Your task to perform on an android device: toggle wifi Image 0: 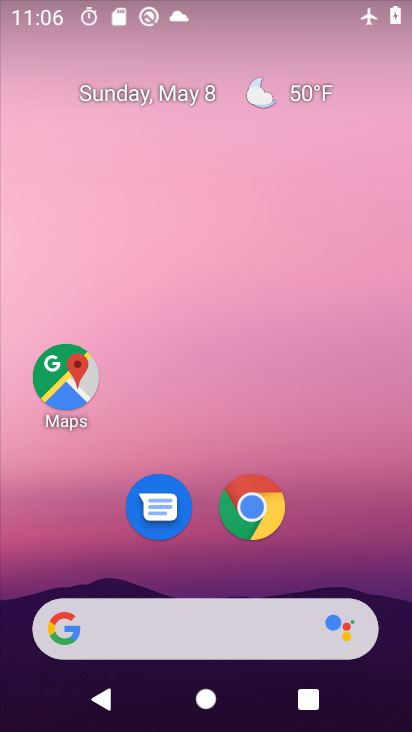
Step 0: drag from (213, 728) to (216, 244)
Your task to perform on an android device: toggle wifi Image 1: 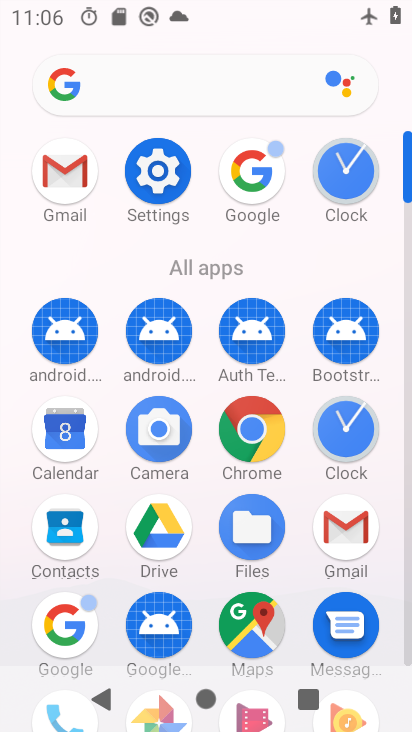
Step 1: click (153, 167)
Your task to perform on an android device: toggle wifi Image 2: 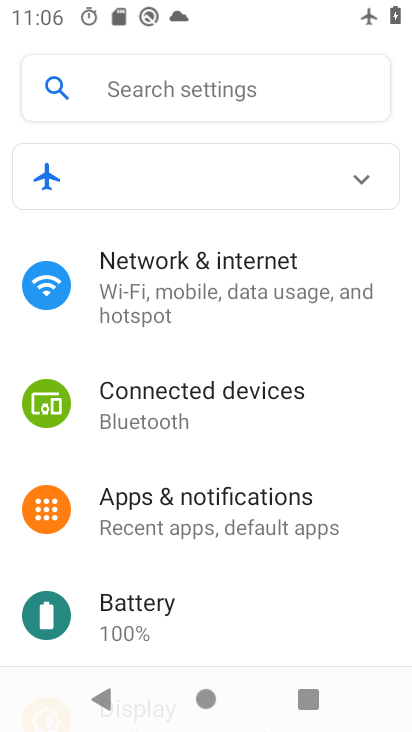
Step 2: click (159, 277)
Your task to perform on an android device: toggle wifi Image 3: 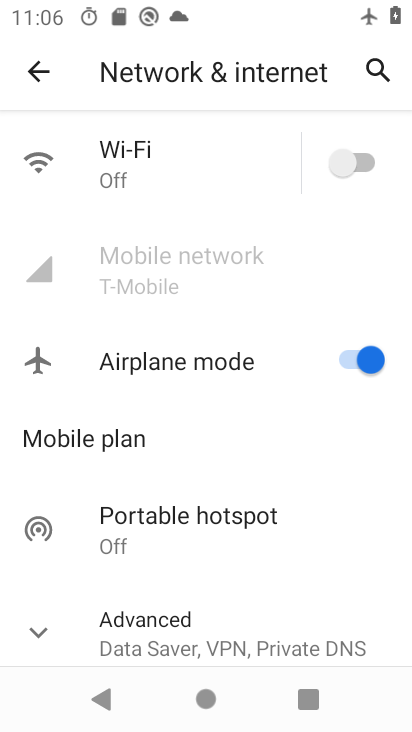
Step 3: click (358, 160)
Your task to perform on an android device: toggle wifi Image 4: 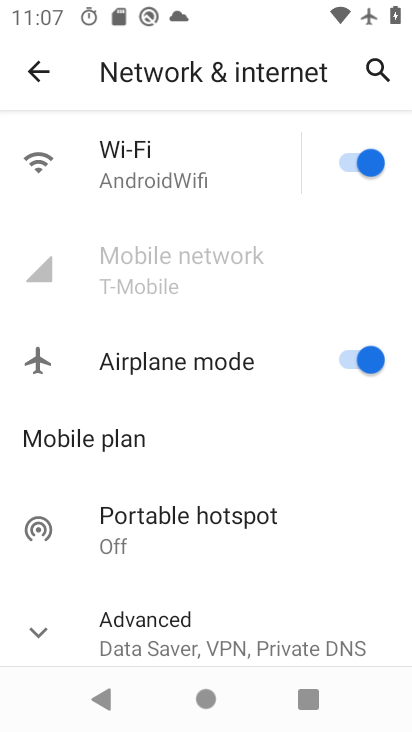
Step 4: task complete